Your task to perform on an android device: Open sound settings Image 0: 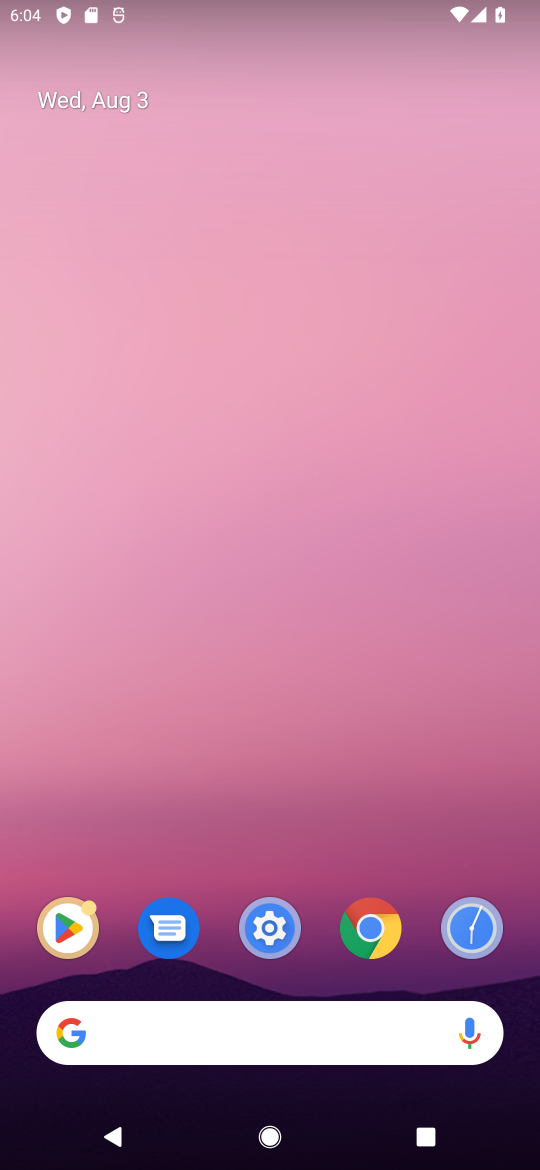
Step 0: drag from (350, 835) to (348, 140)
Your task to perform on an android device: Open sound settings Image 1: 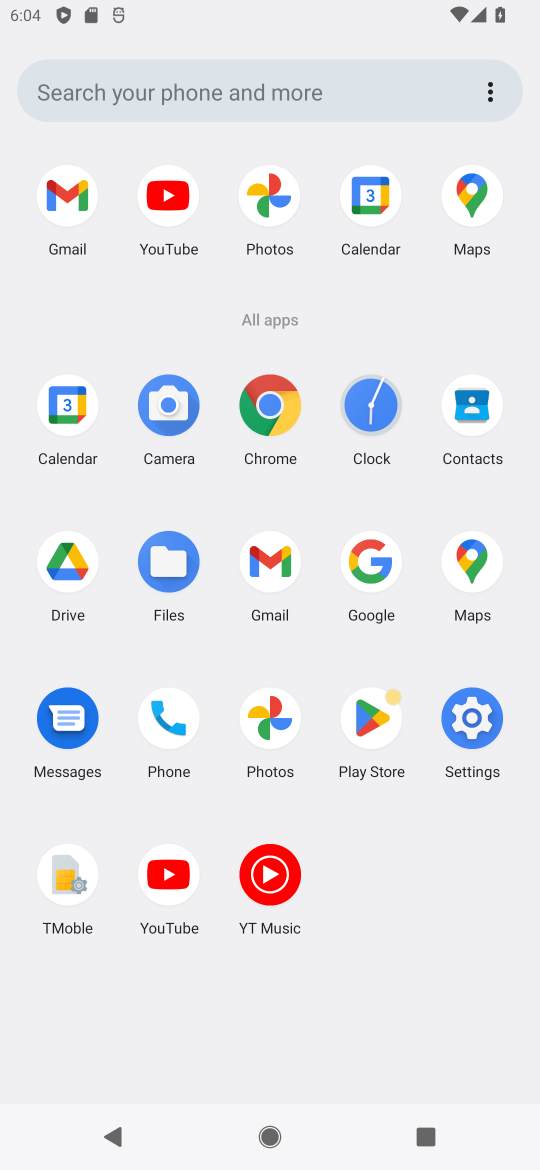
Step 1: click (467, 731)
Your task to perform on an android device: Open sound settings Image 2: 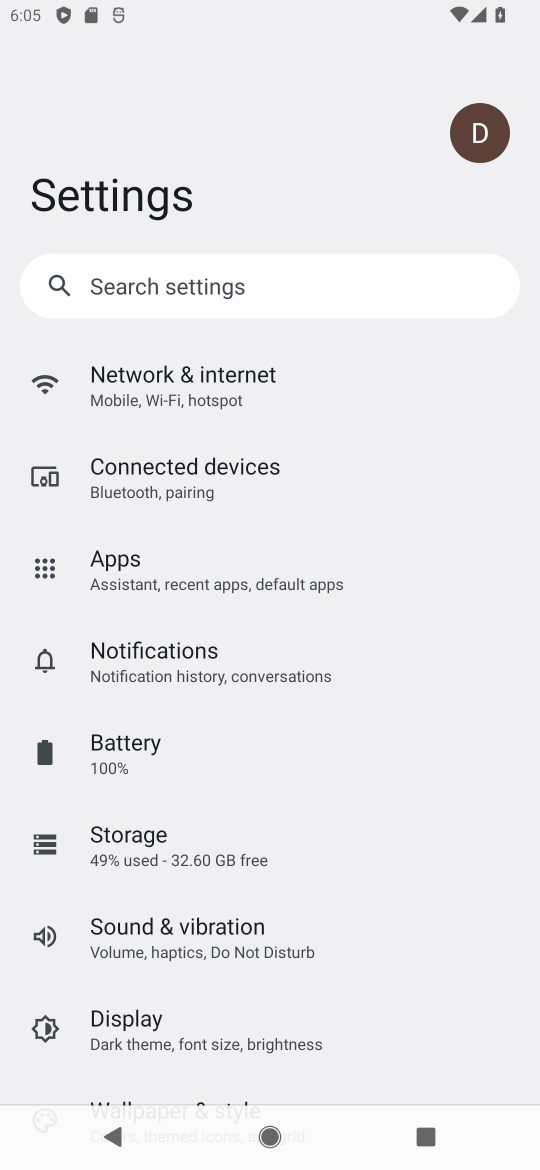
Step 2: click (212, 933)
Your task to perform on an android device: Open sound settings Image 3: 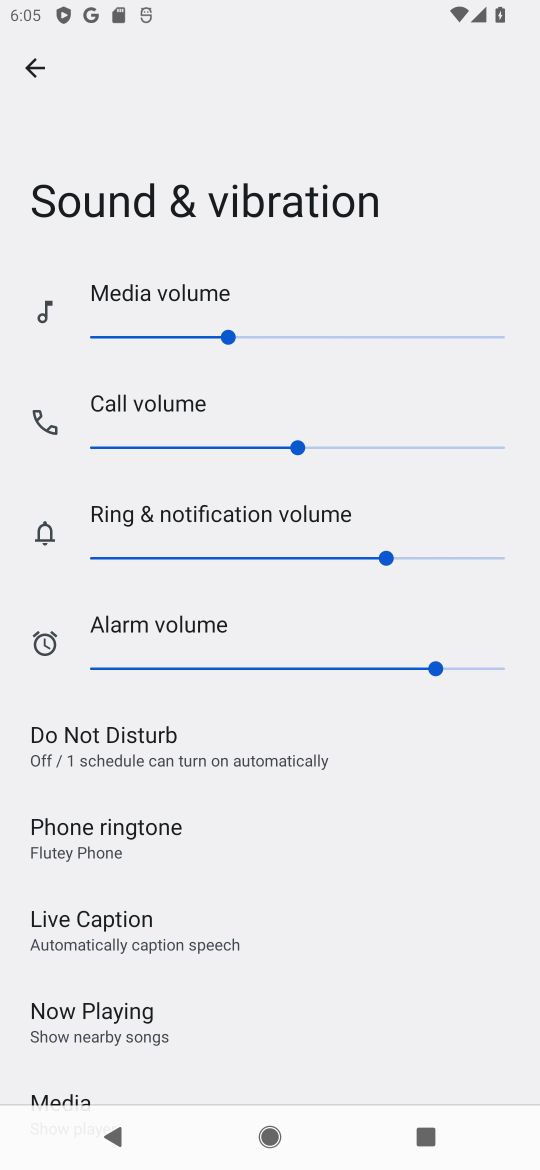
Step 3: task complete